Your task to perform on an android device: turn off notifications settings in the gmail app Image 0: 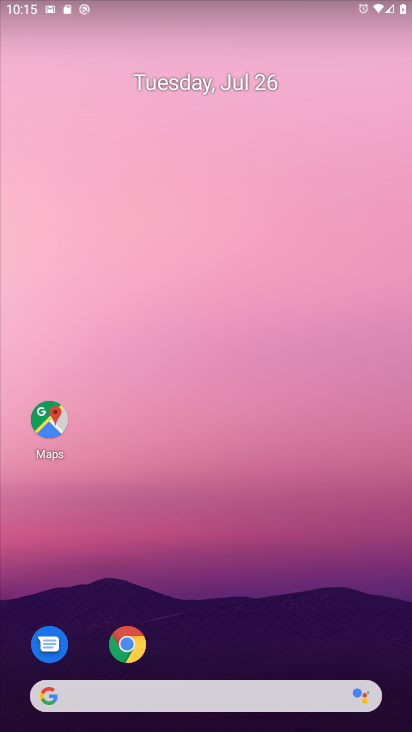
Step 0: drag from (240, 681) to (89, 3)
Your task to perform on an android device: turn off notifications settings in the gmail app Image 1: 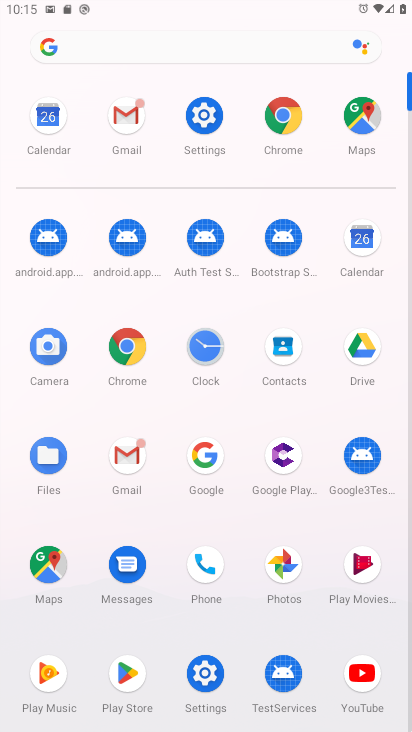
Step 1: click (133, 462)
Your task to perform on an android device: turn off notifications settings in the gmail app Image 2: 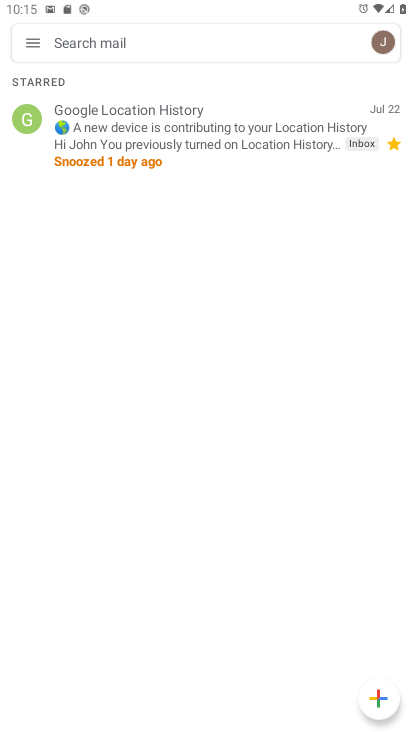
Step 2: click (33, 55)
Your task to perform on an android device: turn off notifications settings in the gmail app Image 3: 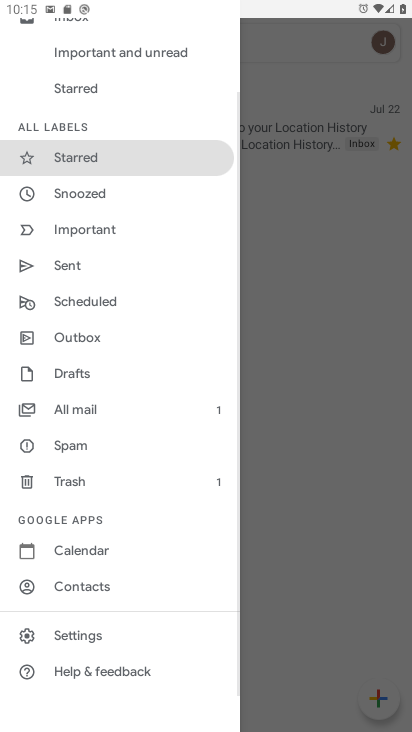
Step 3: click (80, 642)
Your task to perform on an android device: turn off notifications settings in the gmail app Image 4: 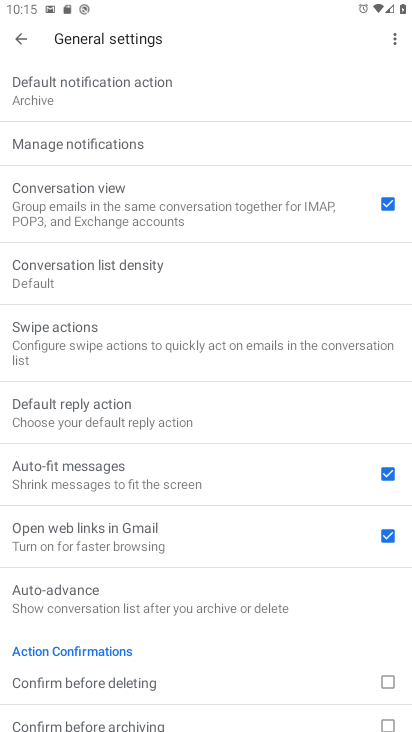
Step 4: click (91, 138)
Your task to perform on an android device: turn off notifications settings in the gmail app Image 5: 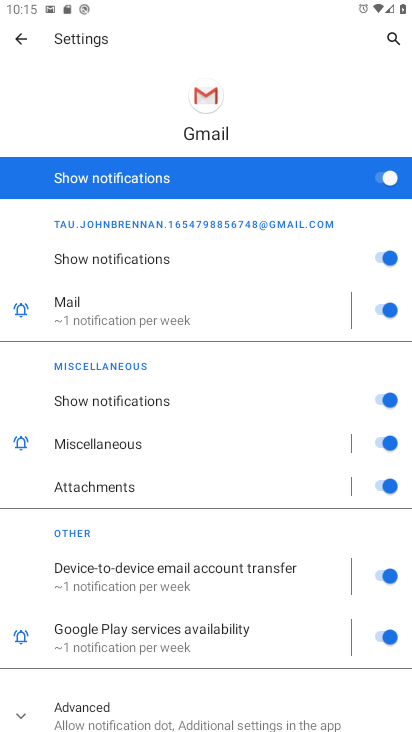
Step 5: click (361, 180)
Your task to perform on an android device: turn off notifications settings in the gmail app Image 6: 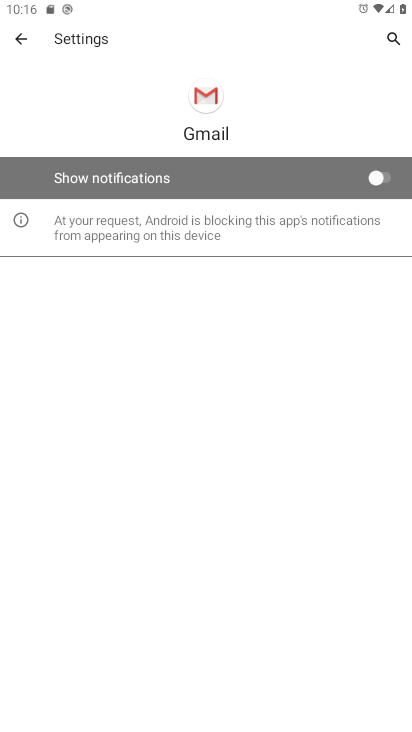
Step 6: task complete